Your task to perform on an android device: turn notification dots off Image 0: 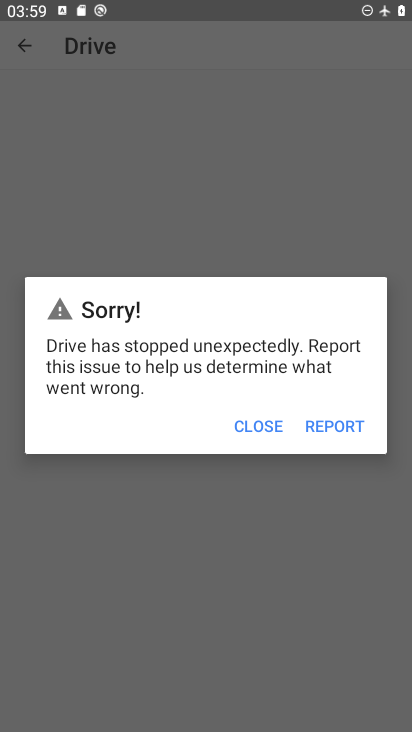
Step 0: press home button
Your task to perform on an android device: turn notification dots off Image 1: 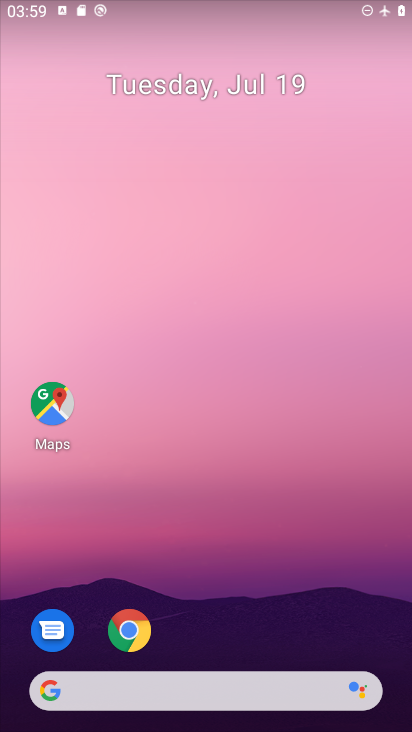
Step 1: drag from (368, 624) to (277, 112)
Your task to perform on an android device: turn notification dots off Image 2: 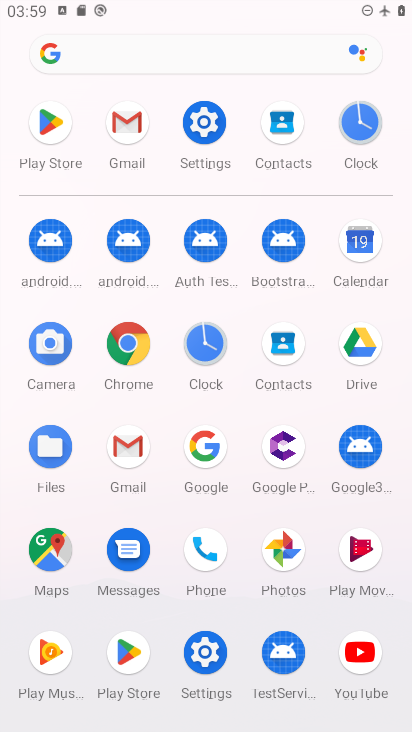
Step 2: click (207, 651)
Your task to perform on an android device: turn notification dots off Image 3: 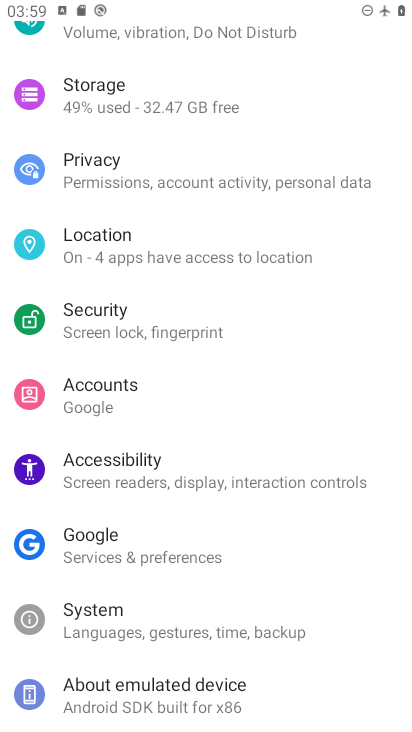
Step 3: drag from (293, 119) to (286, 318)
Your task to perform on an android device: turn notification dots off Image 4: 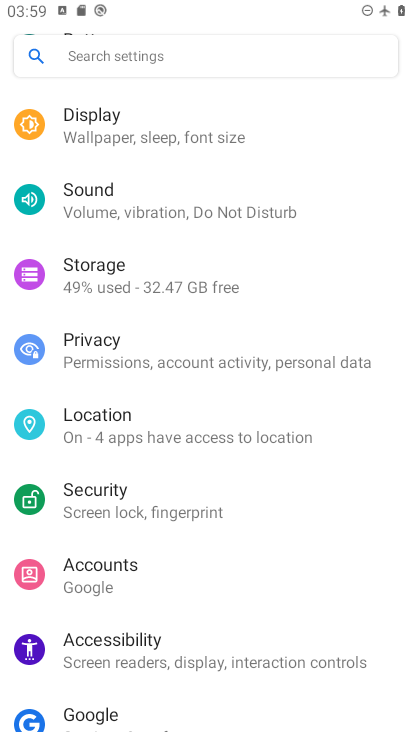
Step 4: drag from (315, 102) to (330, 411)
Your task to perform on an android device: turn notification dots off Image 5: 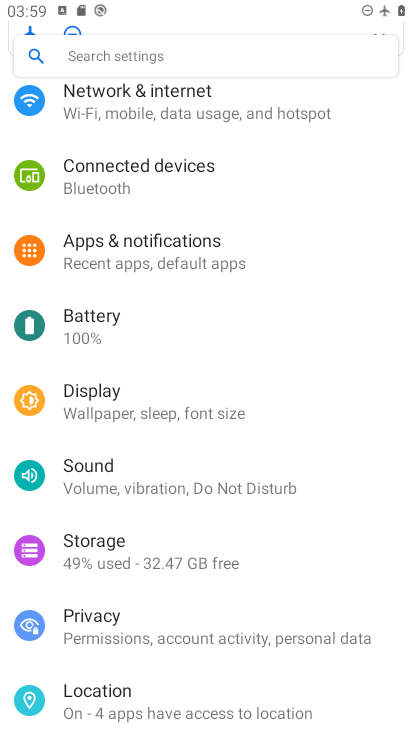
Step 5: click (129, 247)
Your task to perform on an android device: turn notification dots off Image 6: 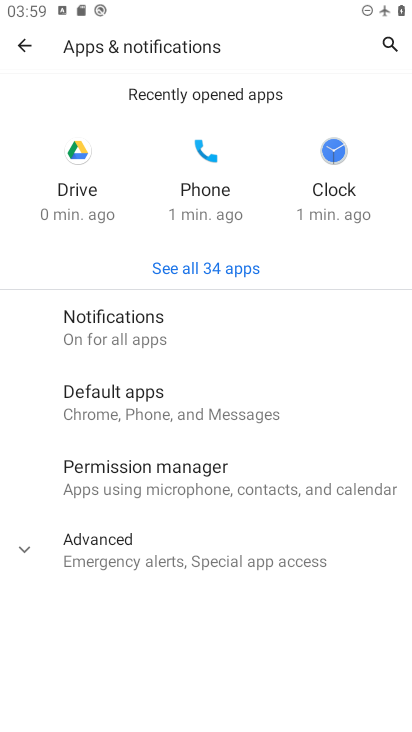
Step 6: click (111, 332)
Your task to perform on an android device: turn notification dots off Image 7: 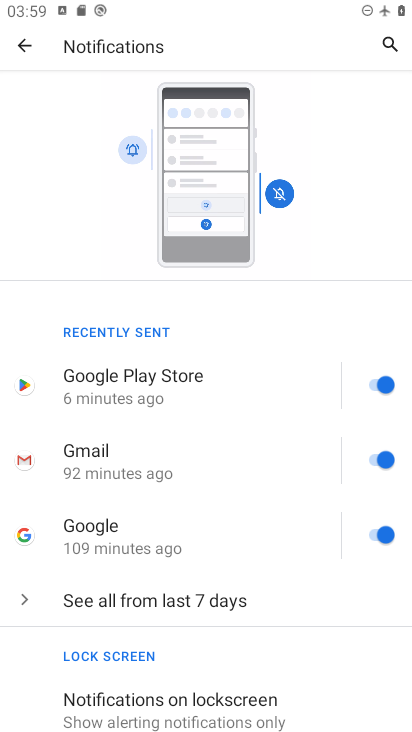
Step 7: drag from (313, 627) to (323, 157)
Your task to perform on an android device: turn notification dots off Image 8: 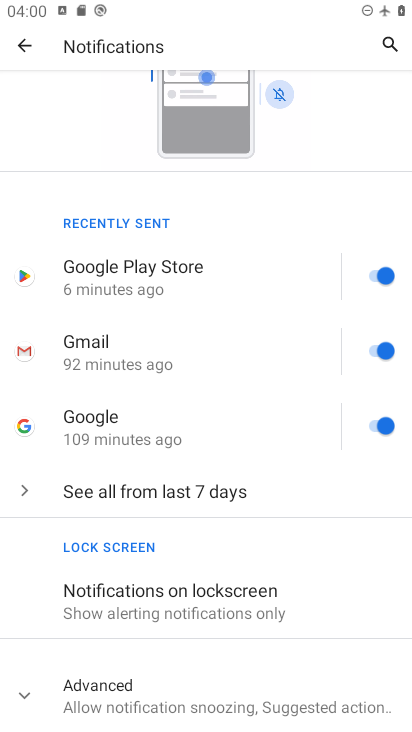
Step 8: click (19, 701)
Your task to perform on an android device: turn notification dots off Image 9: 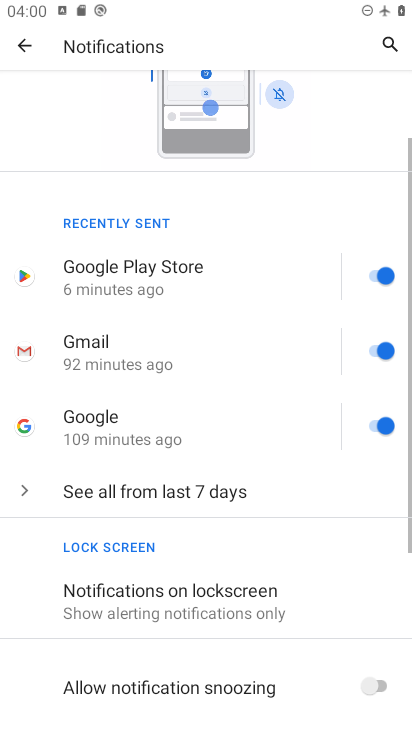
Step 9: drag from (312, 624) to (282, 155)
Your task to perform on an android device: turn notification dots off Image 10: 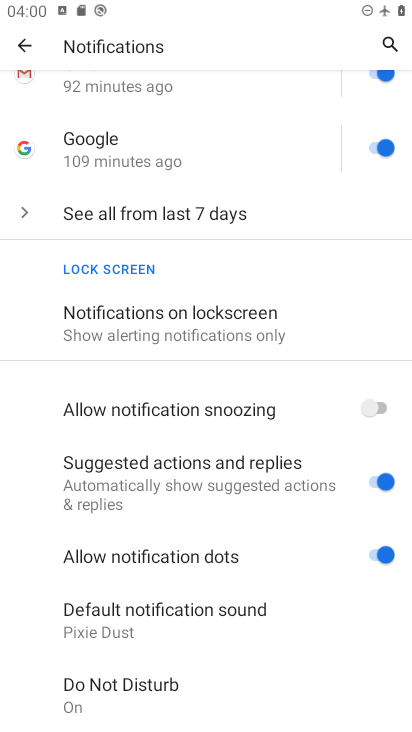
Step 10: click (367, 551)
Your task to perform on an android device: turn notification dots off Image 11: 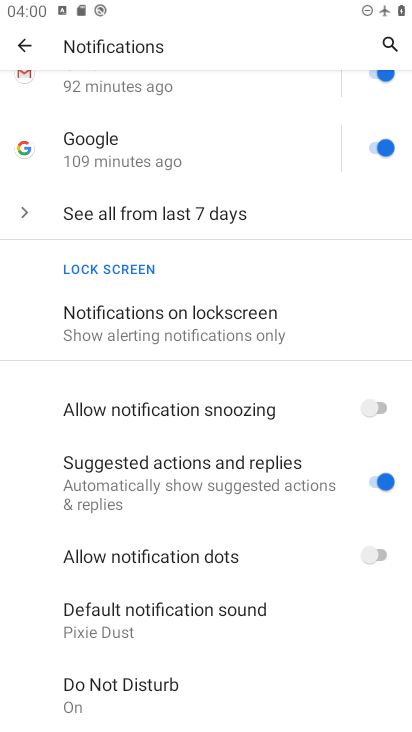
Step 11: task complete